Your task to perform on an android device: turn on airplane mode Image 0: 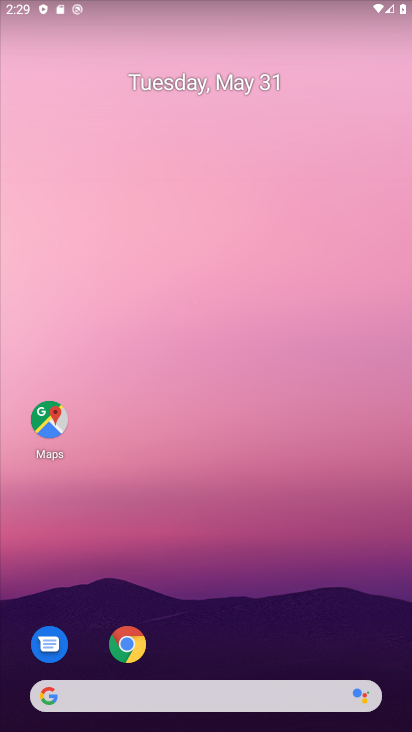
Step 0: drag from (285, 637) to (308, 36)
Your task to perform on an android device: turn on airplane mode Image 1: 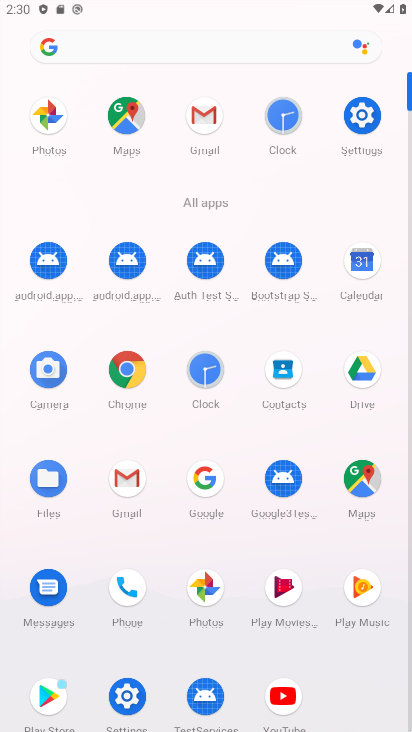
Step 1: click (367, 112)
Your task to perform on an android device: turn on airplane mode Image 2: 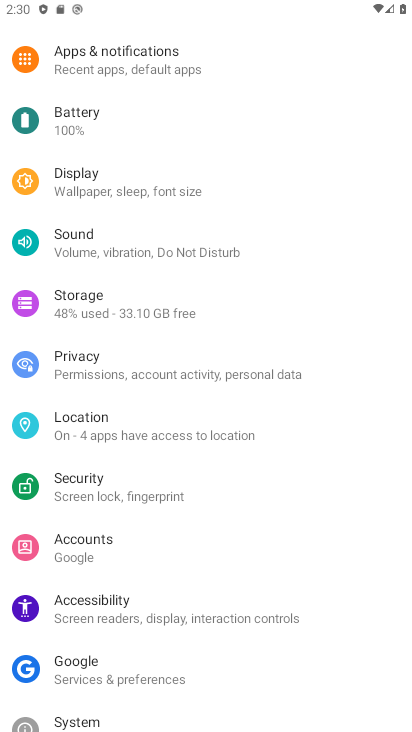
Step 2: drag from (252, 121) to (226, 494)
Your task to perform on an android device: turn on airplane mode Image 3: 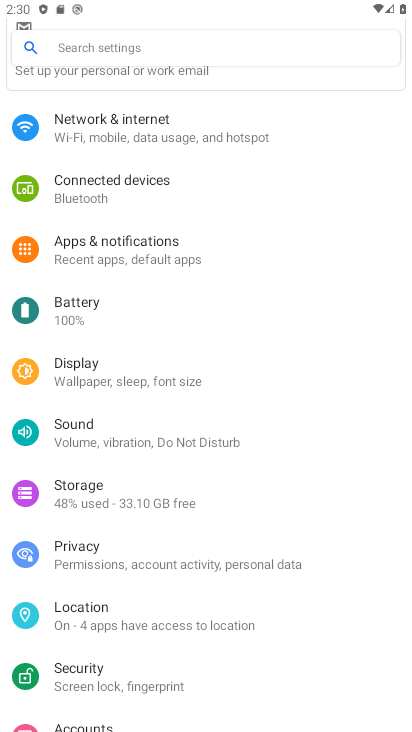
Step 3: click (218, 119)
Your task to perform on an android device: turn on airplane mode Image 4: 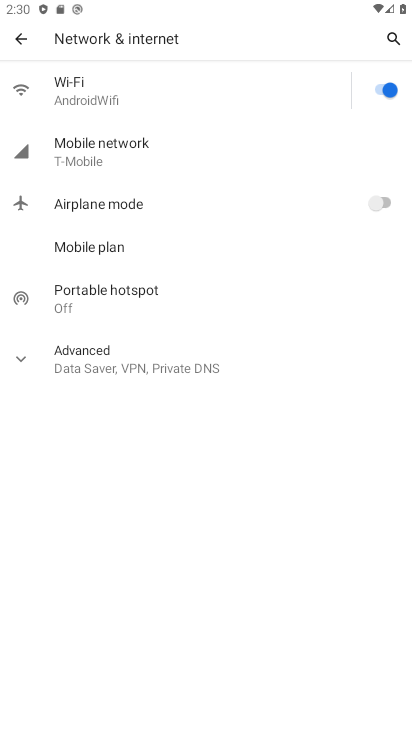
Step 4: click (397, 199)
Your task to perform on an android device: turn on airplane mode Image 5: 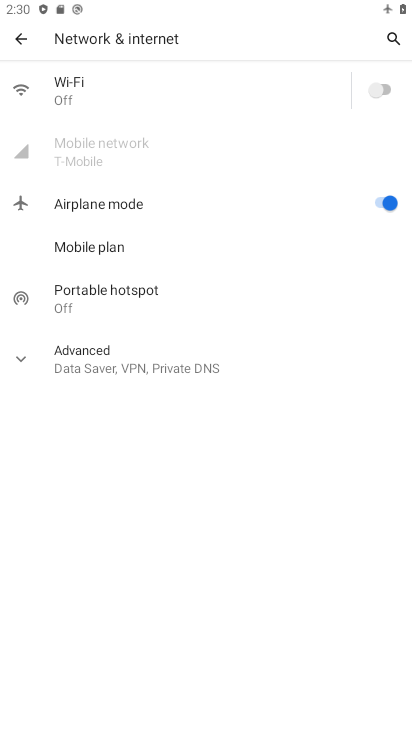
Step 5: task complete